Your task to perform on an android device: What's the weather going to be tomorrow? Image 0: 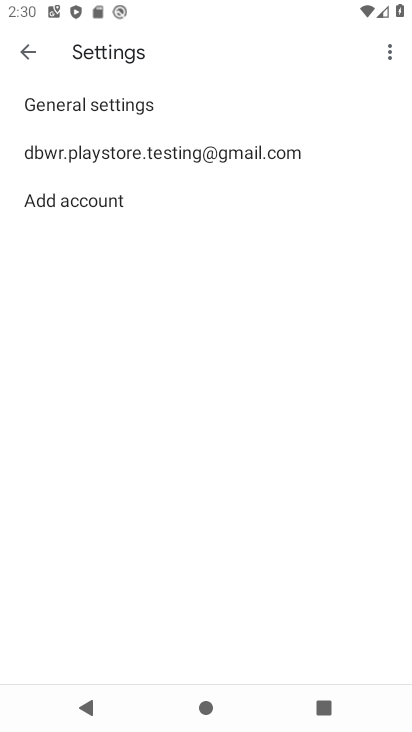
Step 0: press home button
Your task to perform on an android device: What's the weather going to be tomorrow? Image 1: 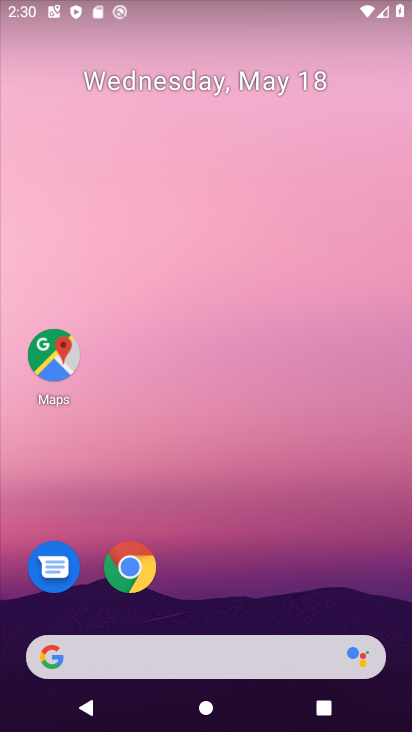
Step 1: click (129, 557)
Your task to perform on an android device: What's the weather going to be tomorrow? Image 2: 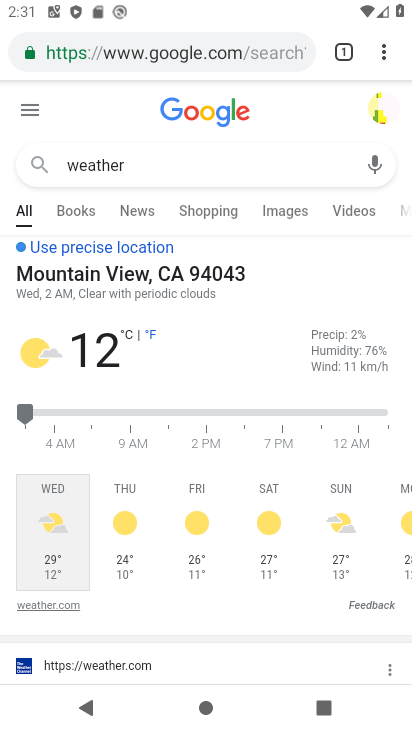
Step 2: click (123, 512)
Your task to perform on an android device: What's the weather going to be tomorrow? Image 3: 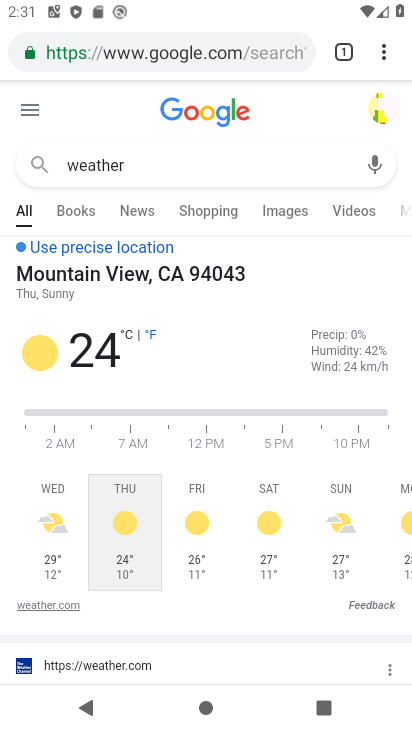
Step 3: task complete